Your task to perform on an android device: Go to settings Image 0: 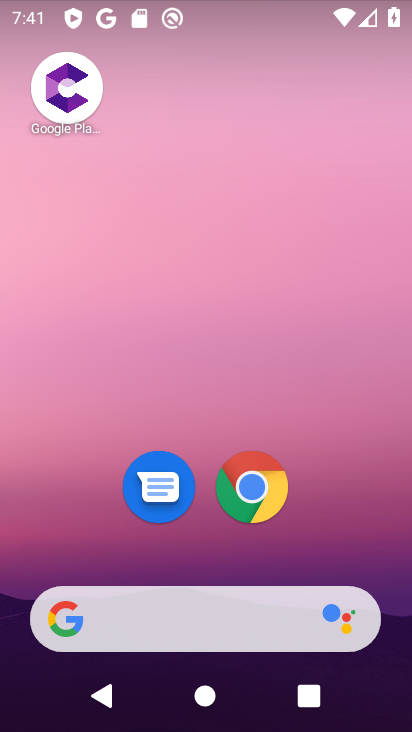
Step 0: drag from (334, 555) to (356, 66)
Your task to perform on an android device: Go to settings Image 1: 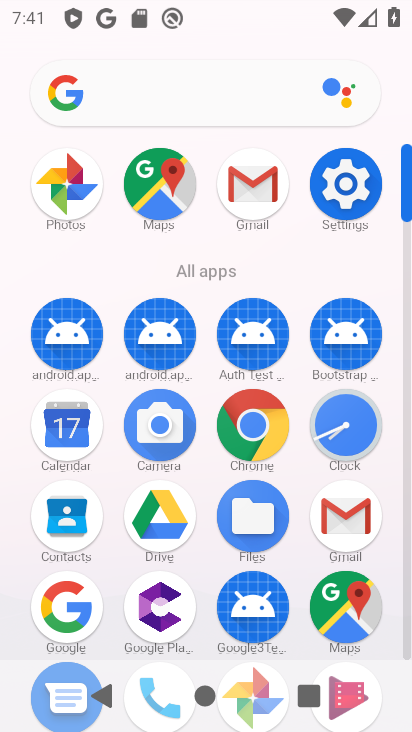
Step 1: click (361, 178)
Your task to perform on an android device: Go to settings Image 2: 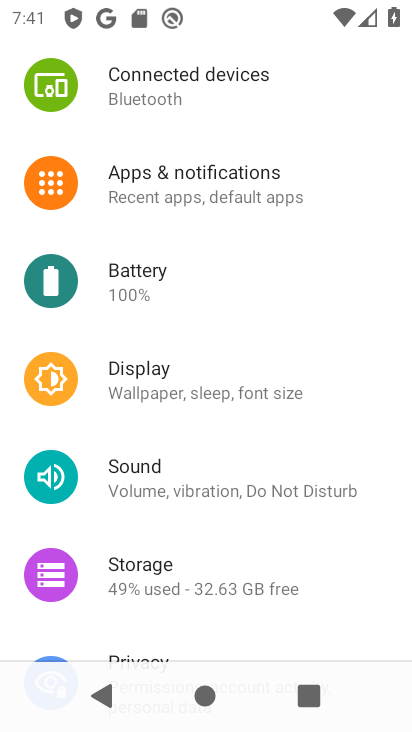
Step 2: task complete